Your task to perform on an android device: change text size in settings app Image 0: 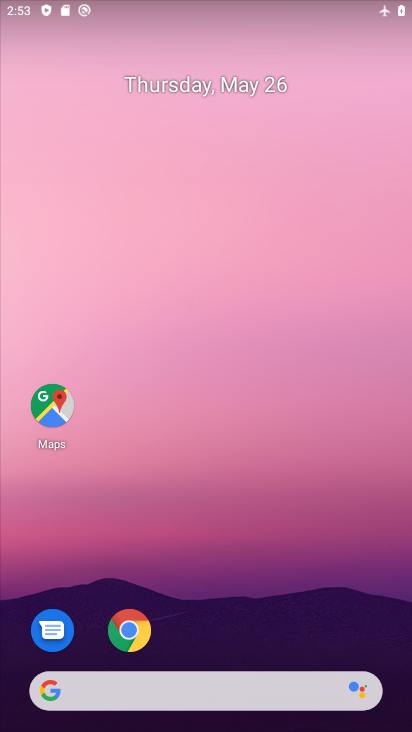
Step 0: drag from (250, 570) to (279, 152)
Your task to perform on an android device: change text size in settings app Image 1: 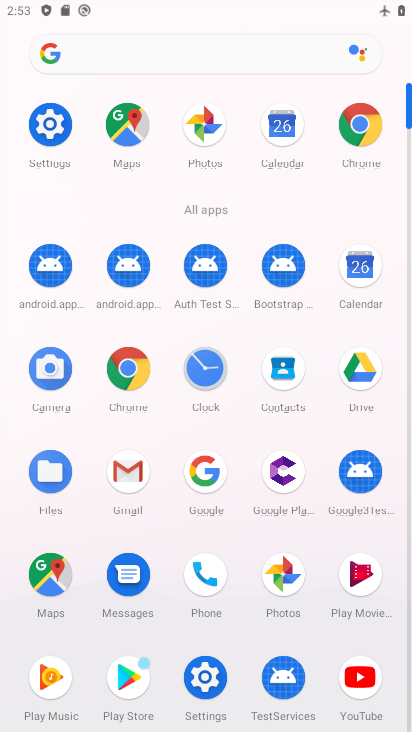
Step 1: click (51, 122)
Your task to perform on an android device: change text size in settings app Image 2: 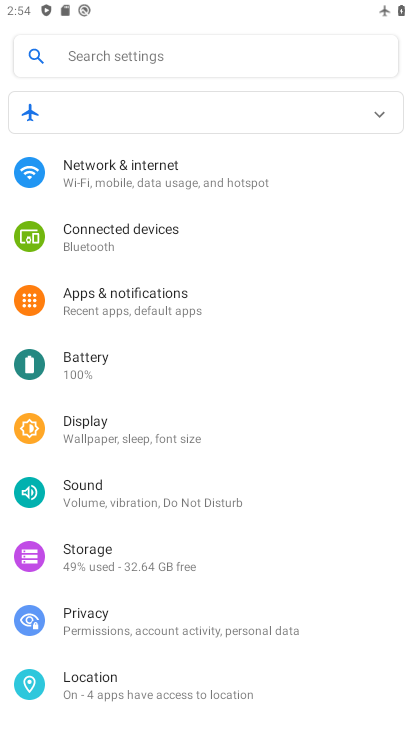
Step 2: drag from (182, 658) to (216, 556)
Your task to perform on an android device: change text size in settings app Image 3: 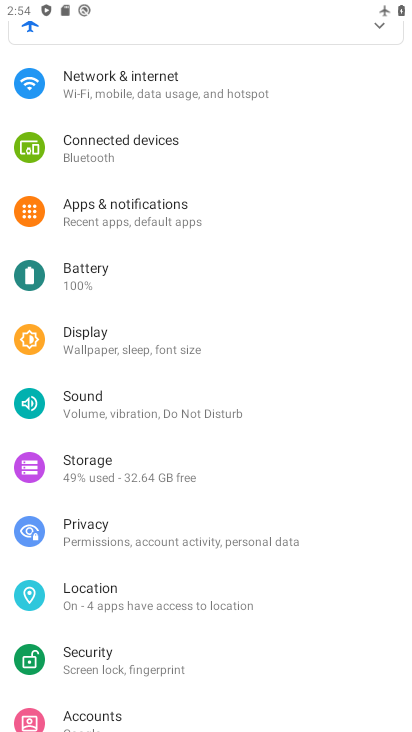
Step 3: drag from (142, 708) to (174, 617)
Your task to perform on an android device: change text size in settings app Image 4: 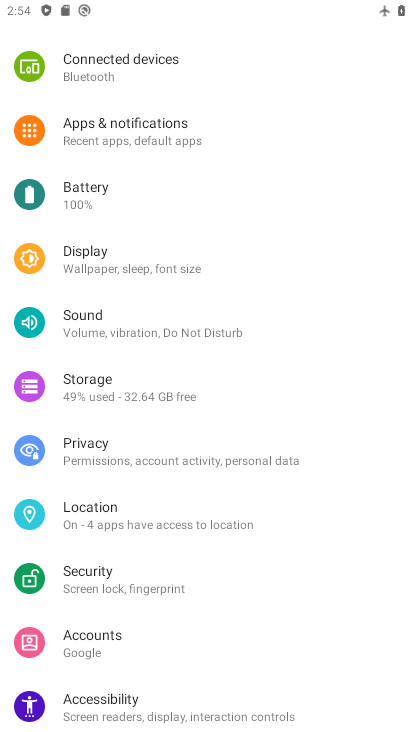
Step 4: drag from (150, 654) to (218, 552)
Your task to perform on an android device: change text size in settings app Image 5: 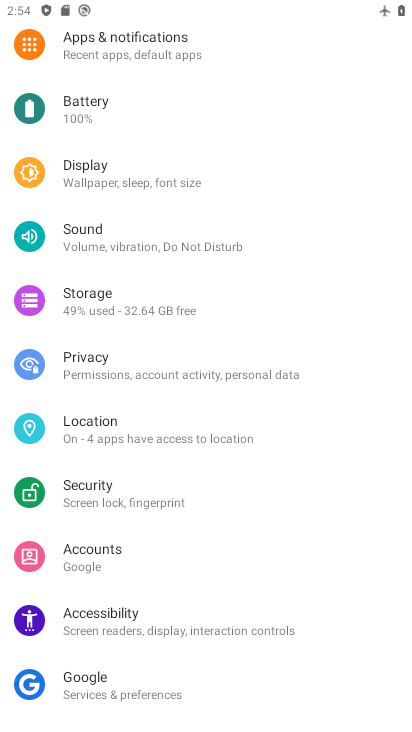
Step 5: click (93, 622)
Your task to perform on an android device: change text size in settings app Image 6: 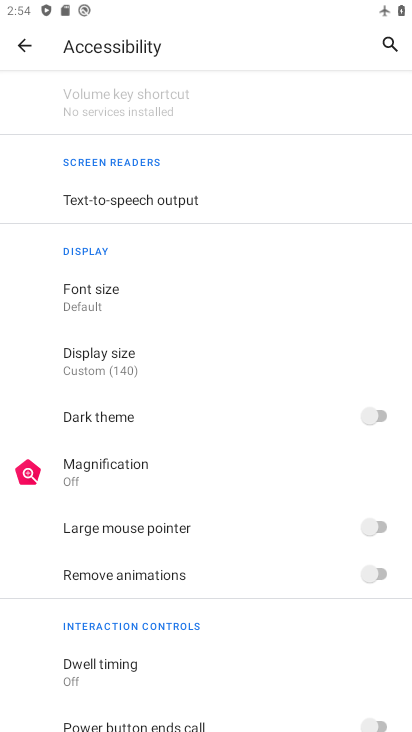
Step 6: click (113, 292)
Your task to perform on an android device: change text size in settings app Image 7: 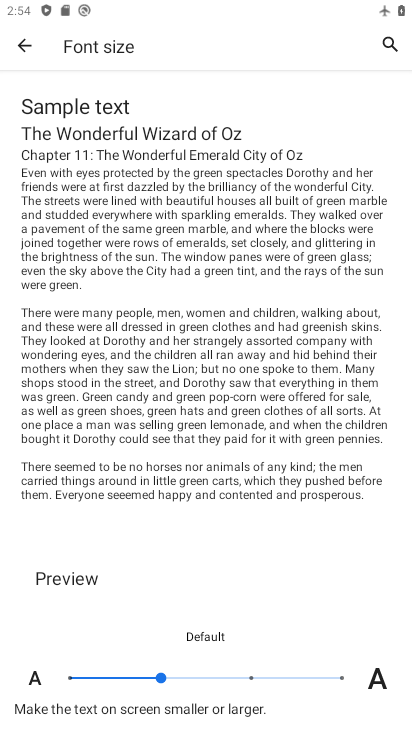
Step 7: click (248, 673)
Your task to perform on an android device: change text size in settings app Image 8: 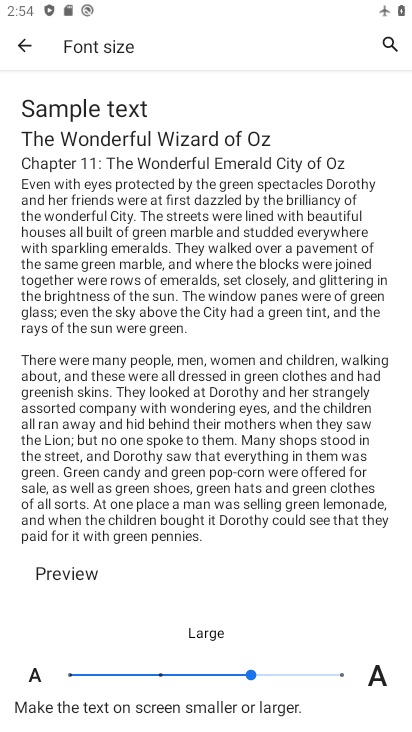
Step 8: task complete